Your task to perform on an android device: find snoozed emails in the gmail app Image 0: 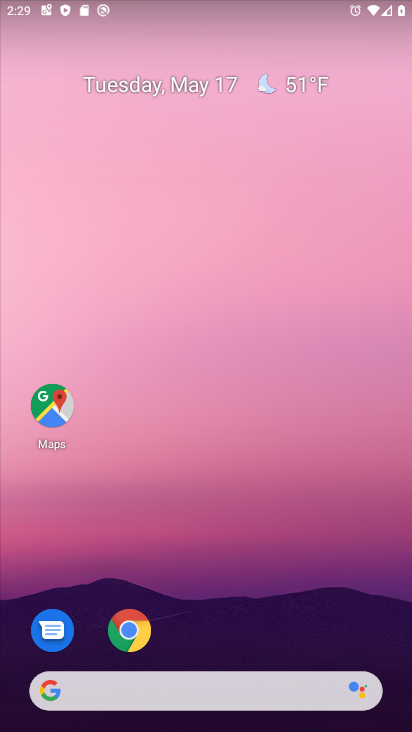
Step 0: drag from (197, 622) to (210, 194)
Your task to perform on an android device: find snoozed emails in the gmail app Image 1: 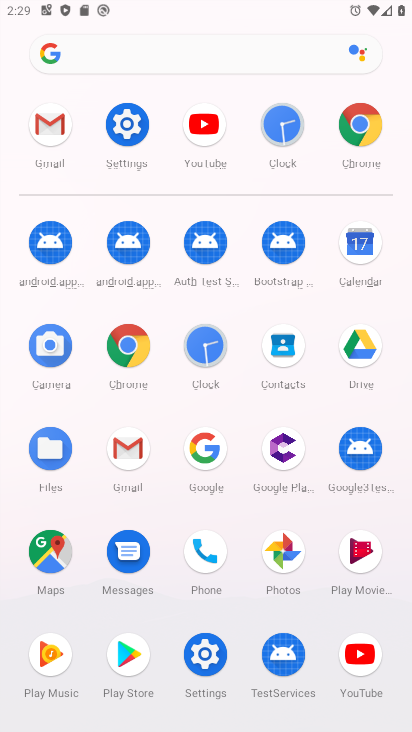
Step 1: click (60, 131)
Your task to perform on an android device: find snoozed emails in the gmail app Image 2: 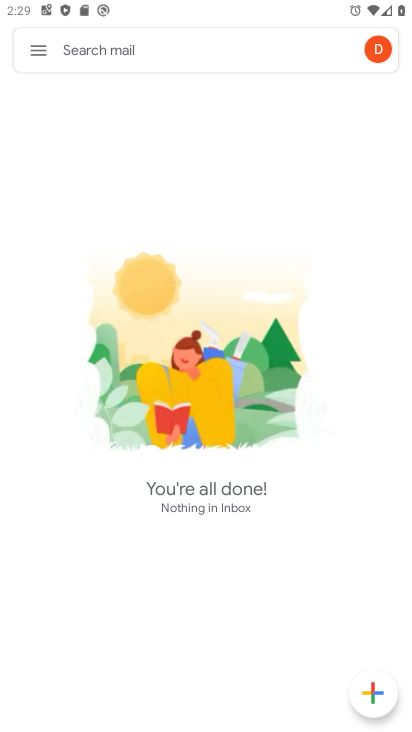
Step 2: click (39, 53)
Your task to perform on an android device: find snoozed emails in the gmail app Image 3: 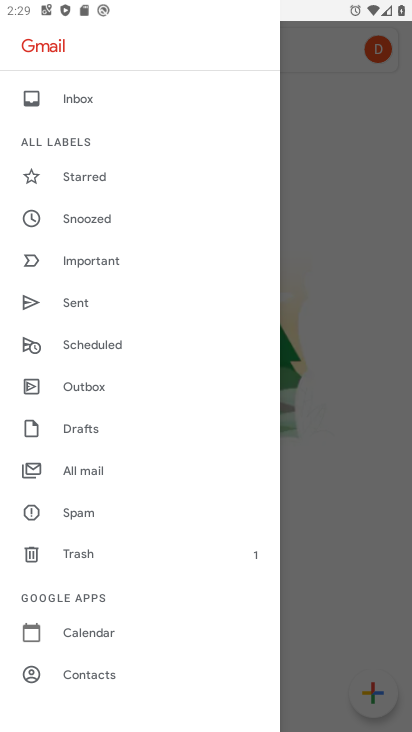
Step 3: click (88, 463)
Your task to perform on an android device: find snoozed emails in the gmail app Image 4: 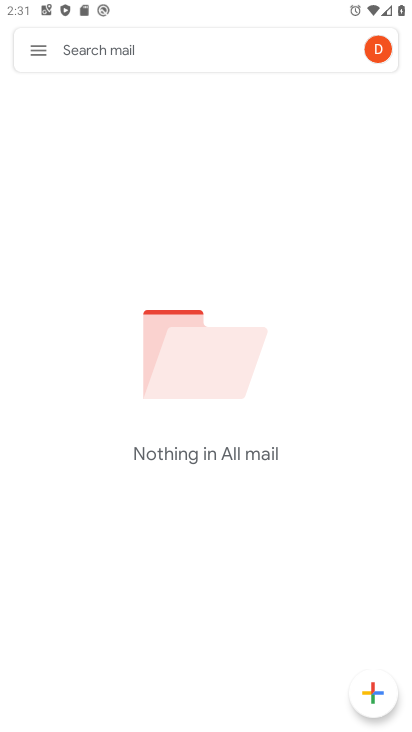
Step 4: click (39, 45)
Your task to perform on an android device: find snoozed emails in the gmail app Image 5: 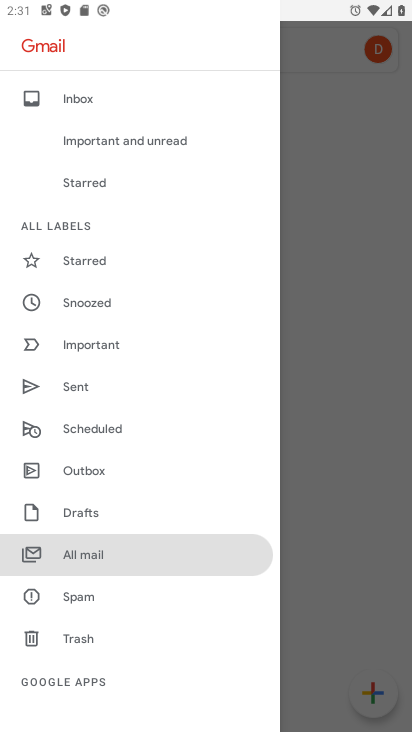
Step 5: click (91, 550)
Your task to perform on an android device: find snoozed emails in the gmail app Image 6: 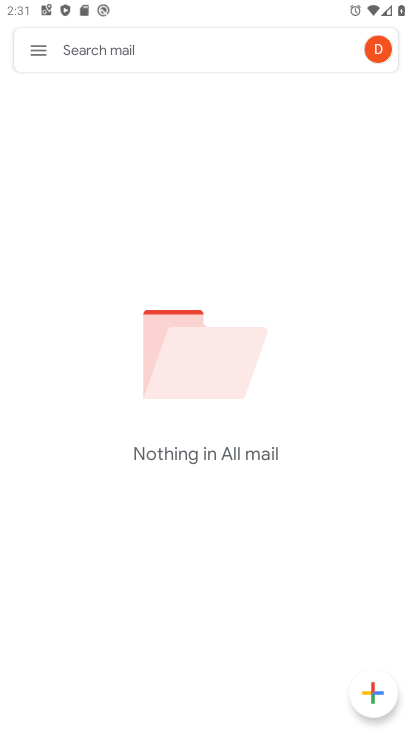
Step 6: click (25, 40)
Your task to perform on an android device: find snoozed emails in the gmail app Image 7: 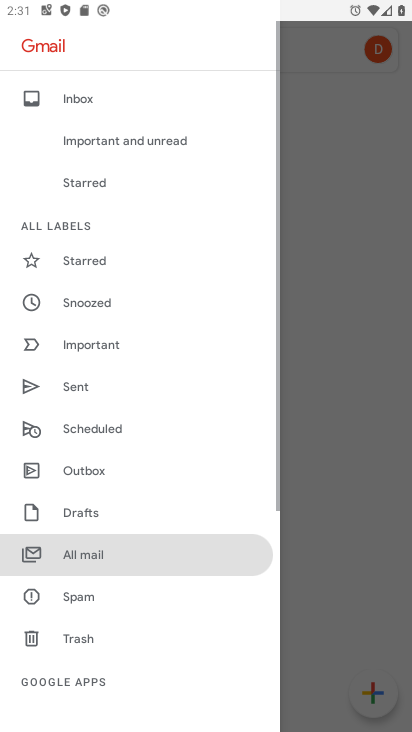
Step 7: click (93, 328)
Your task to perform on an android device: find snoozed emails in the gmail app Image 8: 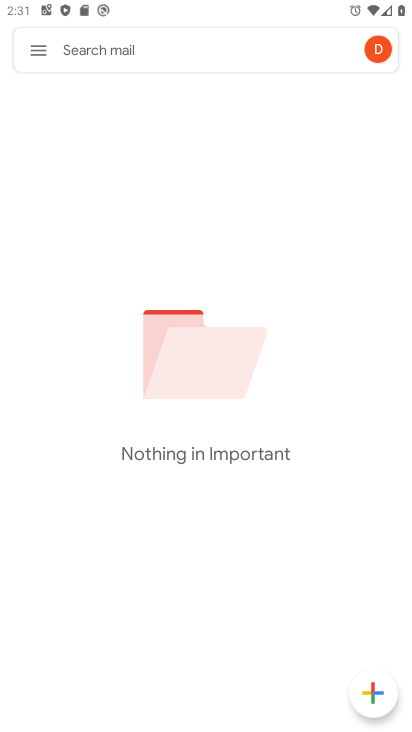
Step 8: click (34, 46)
Your task to perform on an android device: find snoozed emails in the gmail app Image 9: 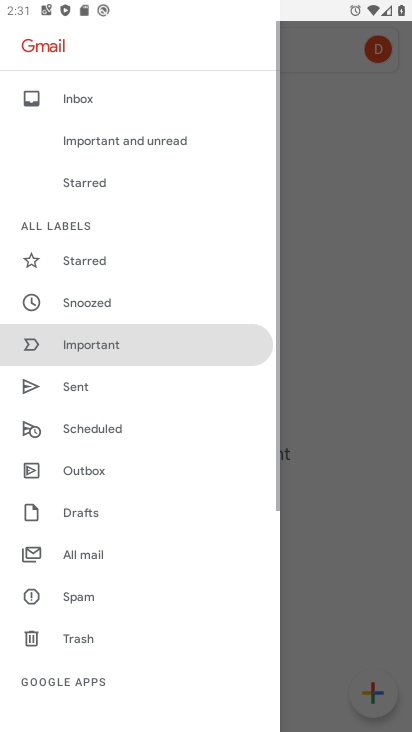
Step 9: click (100, 306)
Your task to perform on an android device: find snoozed emails in the gmail app Image 10: 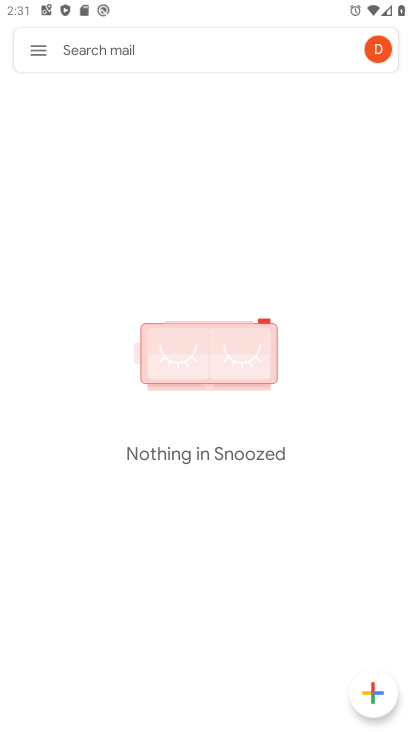
Step 10: task complete